Your task to perform on an android device: Search for seafood restaurants on Google Maps Image 0: 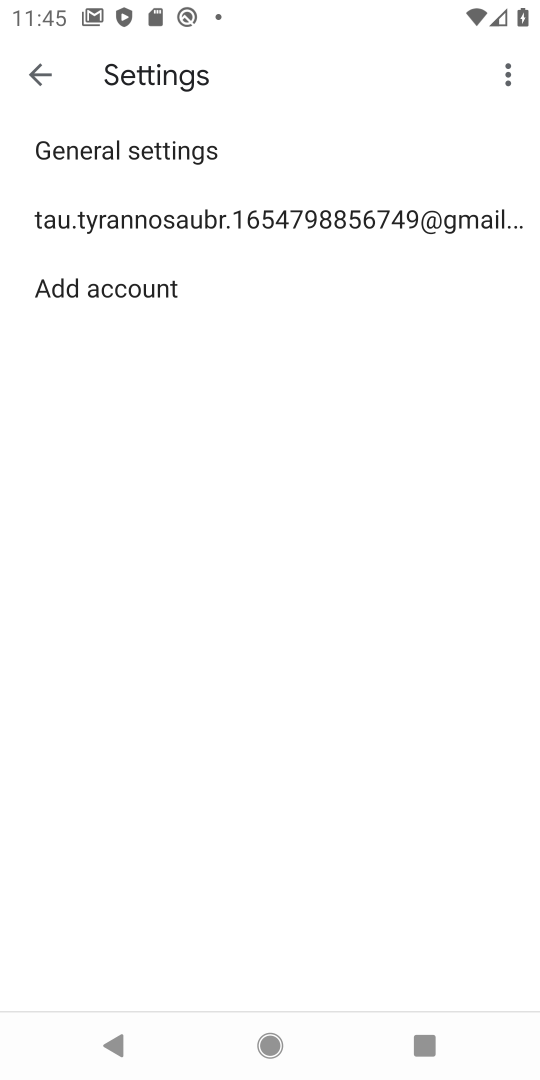
Step 0: press home button
Your task to perform on an android device: Search for seafood restaurants on Google Maps Image 1: 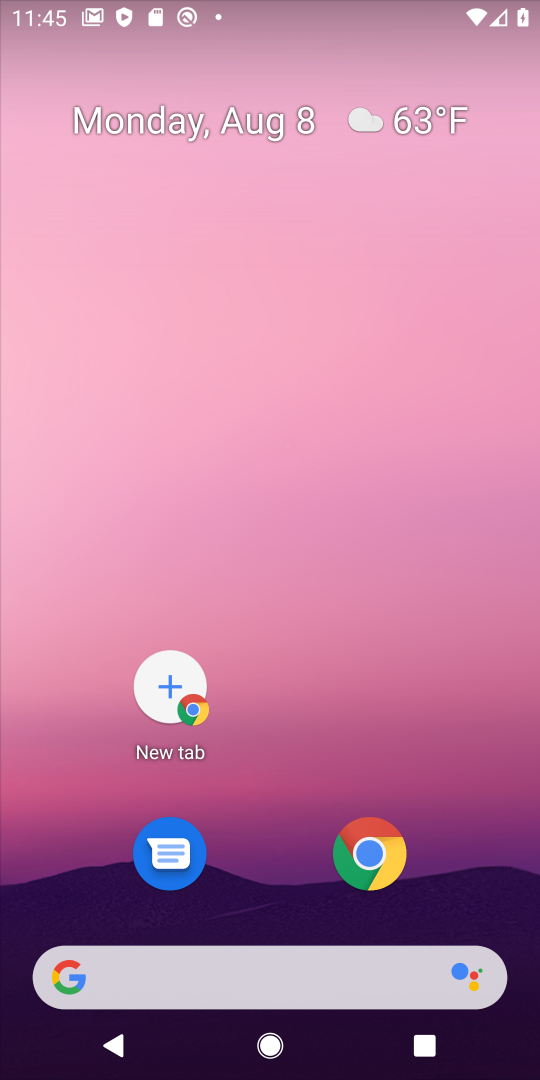
Step 1: drag from (224, 882) to (317, 5)
Your task to perform on an android device: Search for seafood restaurants on Google Maps Image 2: 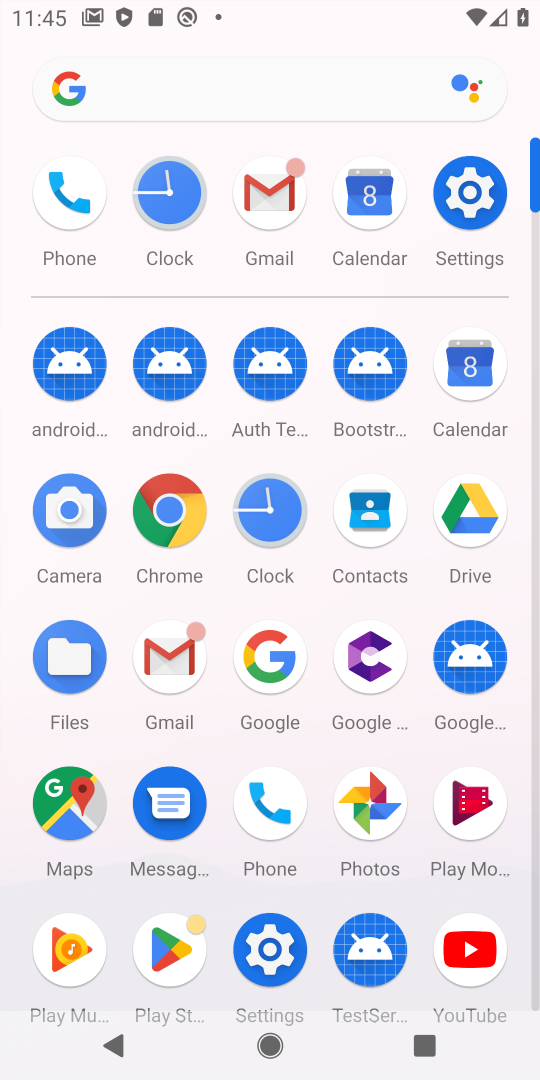
Step 2: click (77, 800)
Your task to perform on an android device: Search for seafood restaurants on Google Maps Image 3: 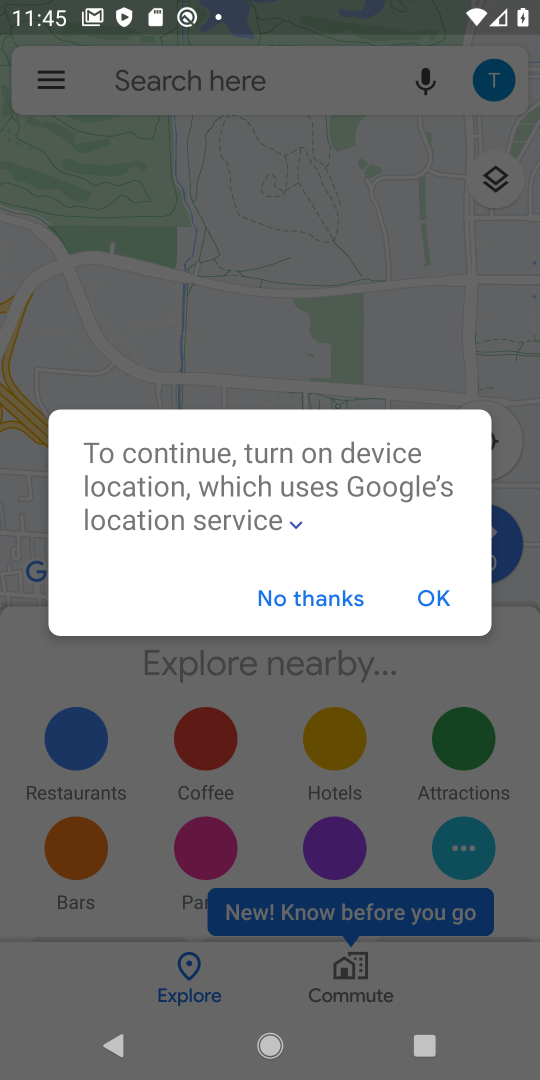
Step 3: click (441, 601)
Your task to perform on an android device: Search for seafood restaurants on Google Maps Image 4: 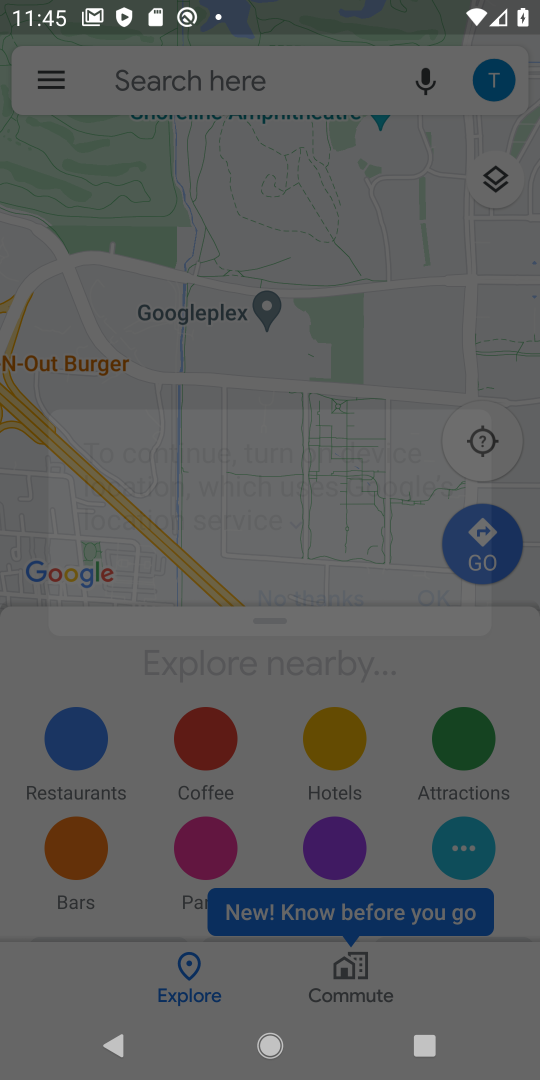
Step 4: click (236, 81)
Your task to perform on an android device: Search for seafood restaurants on Google Maps Image 5: 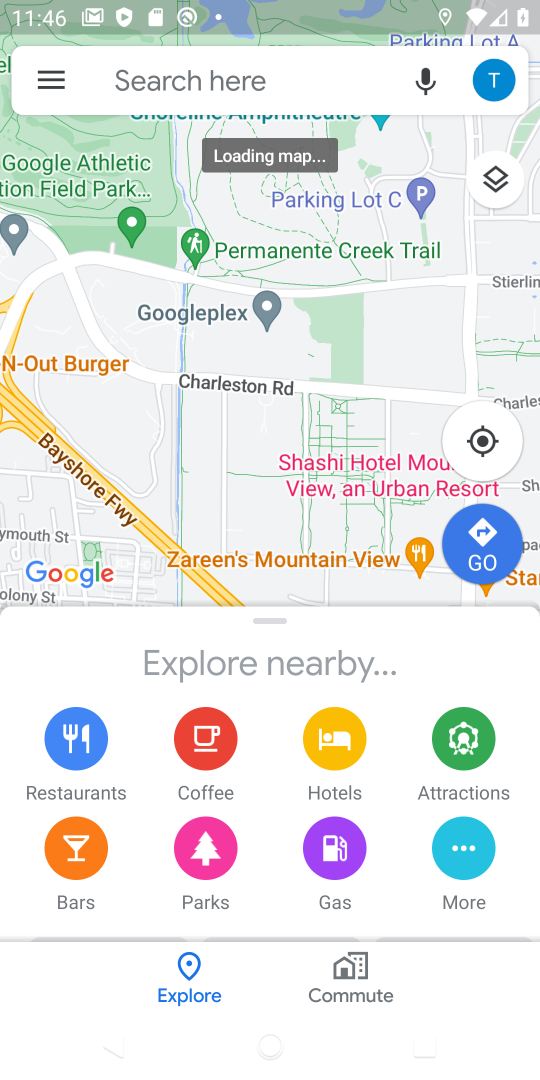
Step 5: click (236, 81)
Your task to perform on an android device: Search for seafood restaurants on Google Maps Image 6: 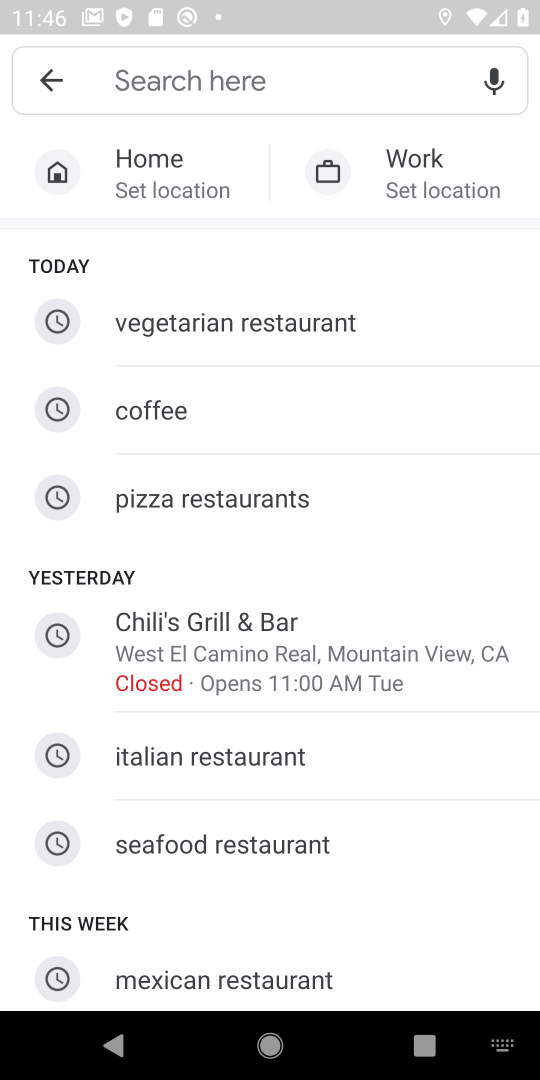
Step 6: click (215, 840)
Your task to perform on an android device: Search for seafood restaurants on Google Maps Image 7: 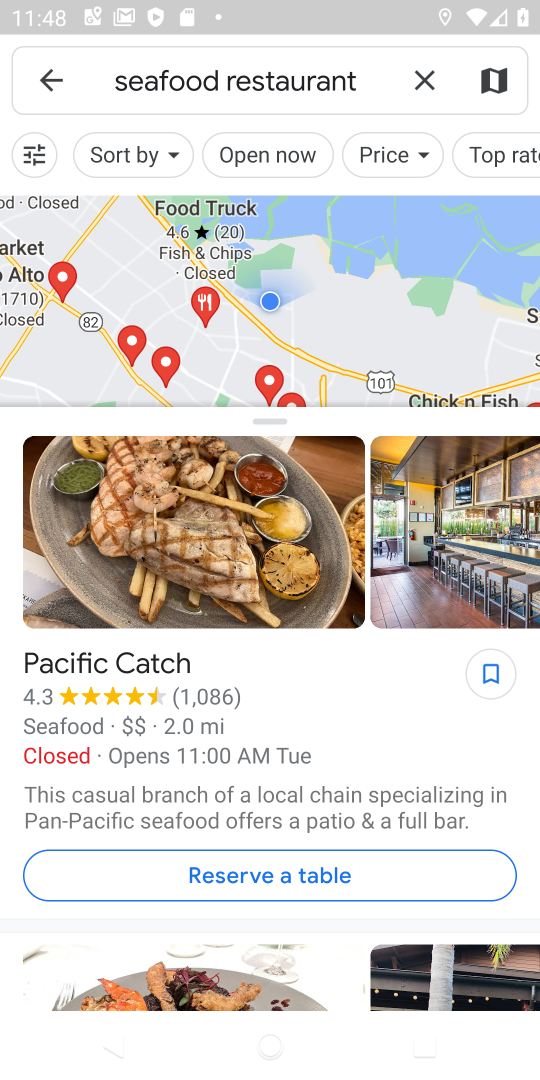
Step 7: task complete